Your task to perform on an android device: What's the weather going to be tomorrow? Image 0: 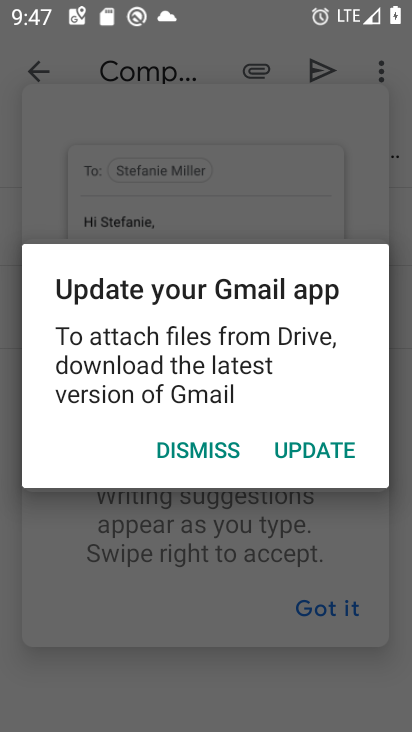
Step 0: press home button
Your task to perform on an android device: What's the weather going to be tomorrow? Image 1: 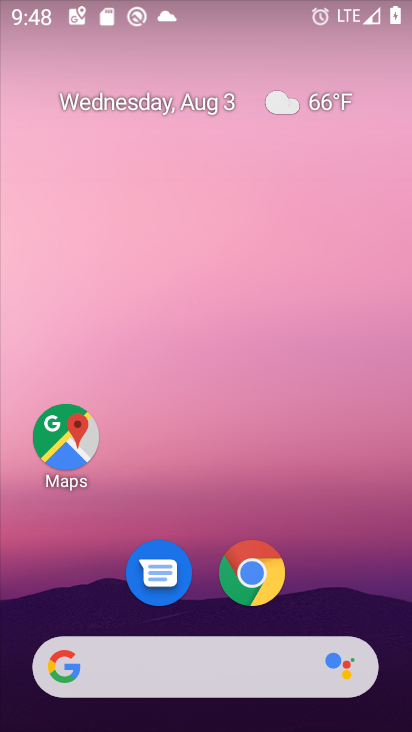
Step 1: click (143, 672)
Your task to perform on an android device: What's the weather going to be tomorrow? Image 2: 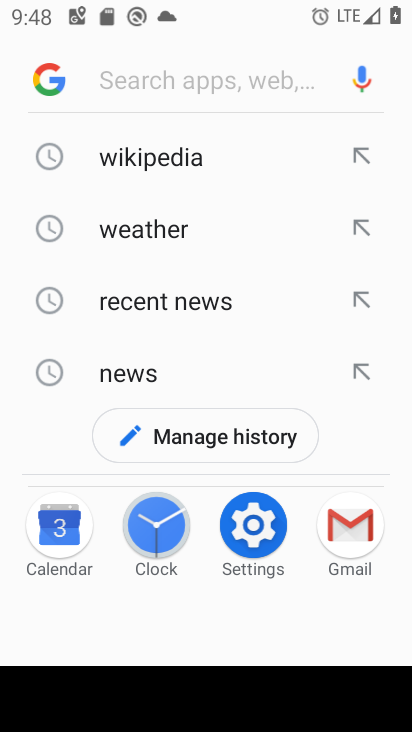
Step 2: click (131, 236)
Your task to perform on an android device: What's the weather going to be tomorrow? Image 3: 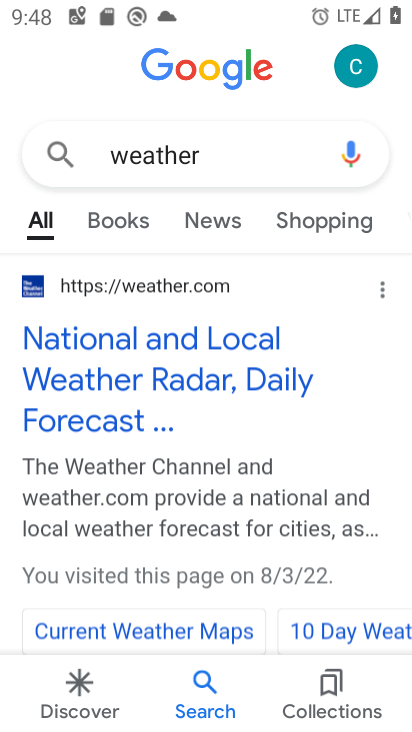
Step 3: click (113, 353)
Your task to perform on an android device: What's the weather going to be tomorrow? Image 4: 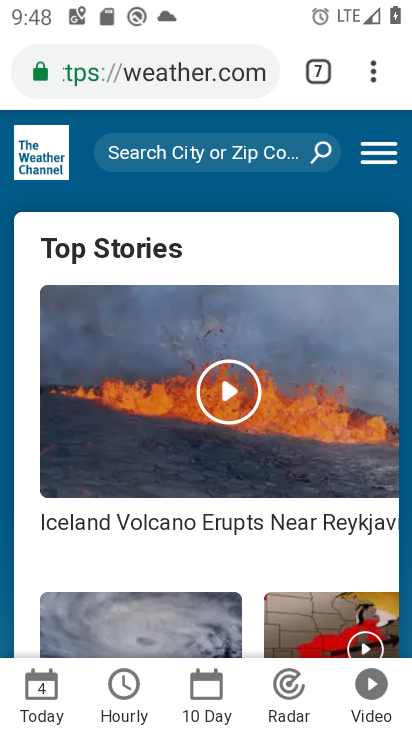
Step 4: click (202, 702)
Your task to perform on an android device: What's the weather going to be tomorrow? Image 5: 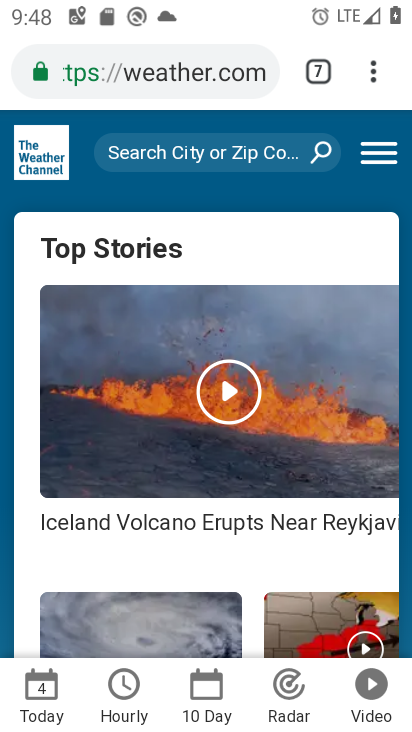
Step 5: click (206, 696)
Your task to perform on an android device: What's the weather going to be tomorrow? Image 6: 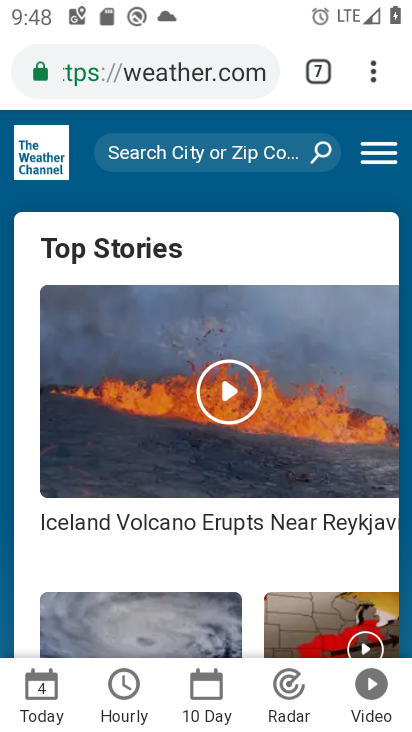
Step 6: click (206, 696)
Your task to perform on an android device: What's the weather going to be tomorrow? Image 7: 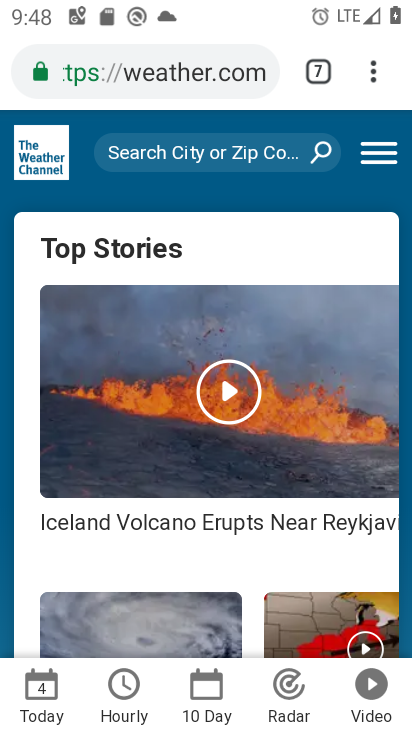
Step 7: click (206, 695)
Your task to perform on an android device: What's the weather going to be tomorrow? Image 8: 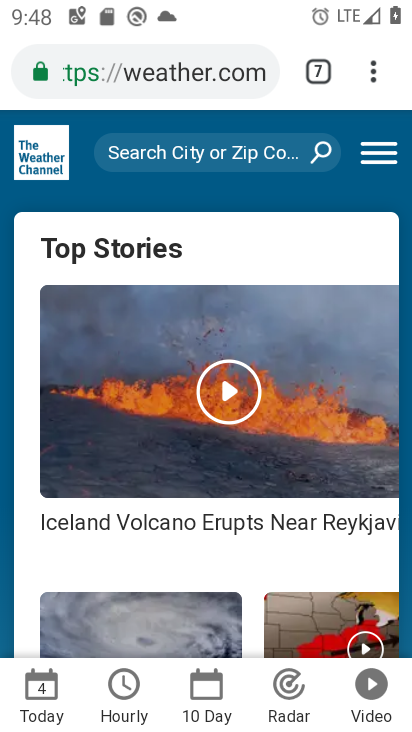
Step 8: task complete